Your task to perform on an android device: Search for Mexican restaurants on Maps Image 0: 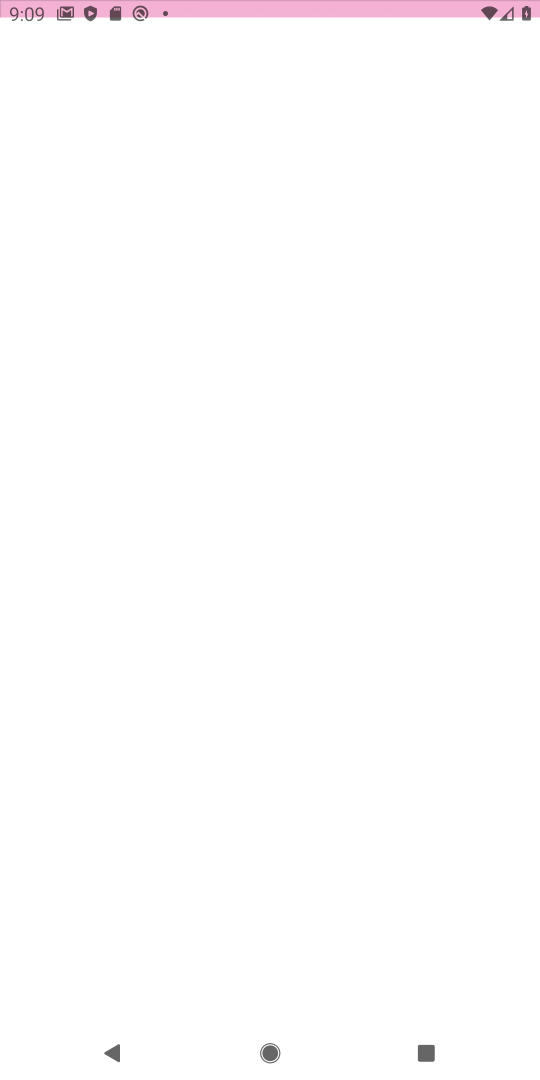
Step 0: press back button
Your task to perform on an android device: Search for Mexican restaurants on Maps Image 1: 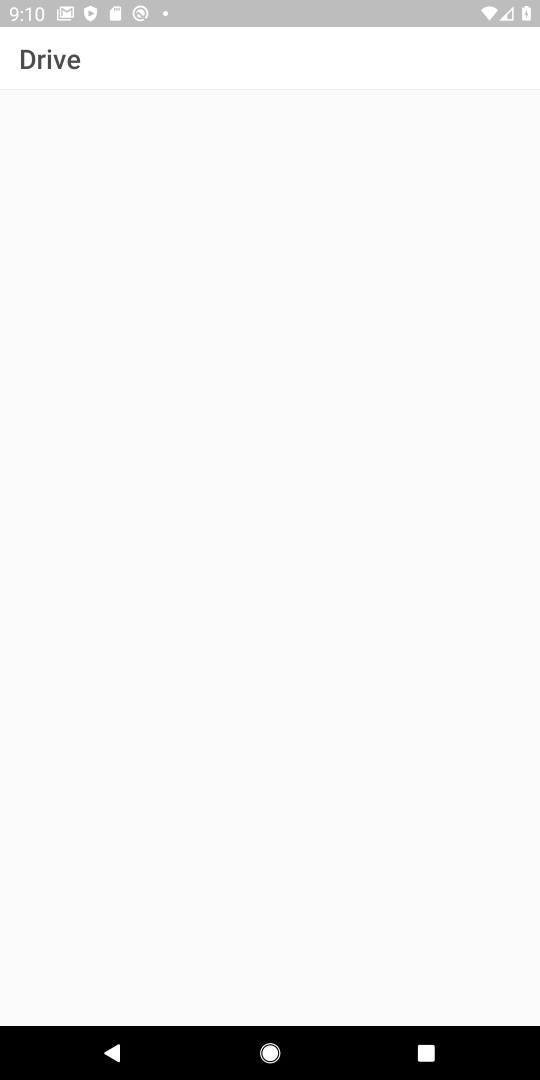
Step 1: press back button
Your task to perform on an android device: Search for Mexican restaurants on Maps Image 2: 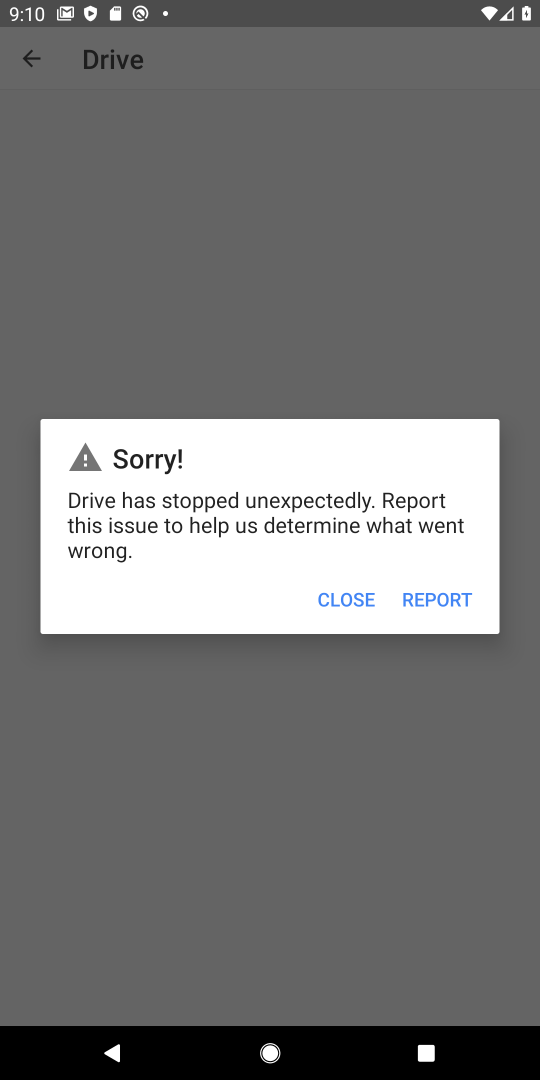
Step 2: press back button
Your task to perform on an android device: Search for Mexican restaurants on Maps Image 3: 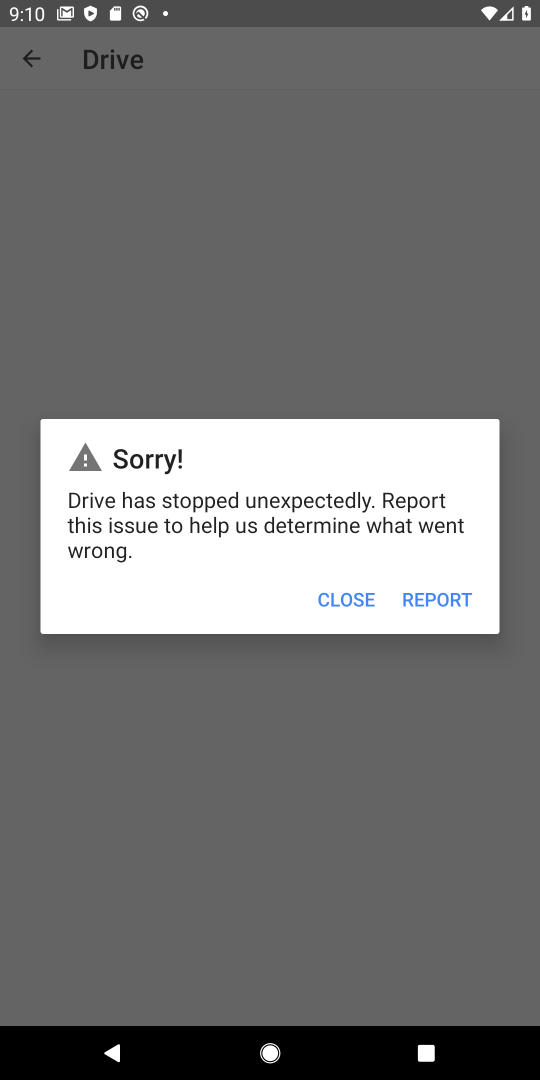
Step 3: press home button
Your task to perform on an android device: Search for Mexican restaurants on Maps Image 4: 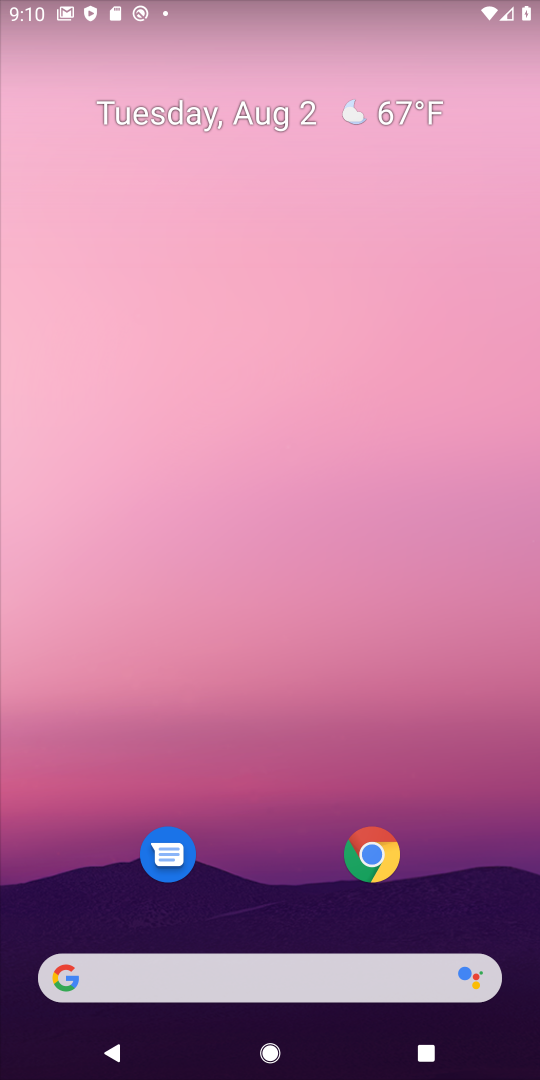
Step 4: drag from (283, 937) to (293, 0)
Your task to perform on an android device: Search for Mexican restaurants on Maps Image 5: 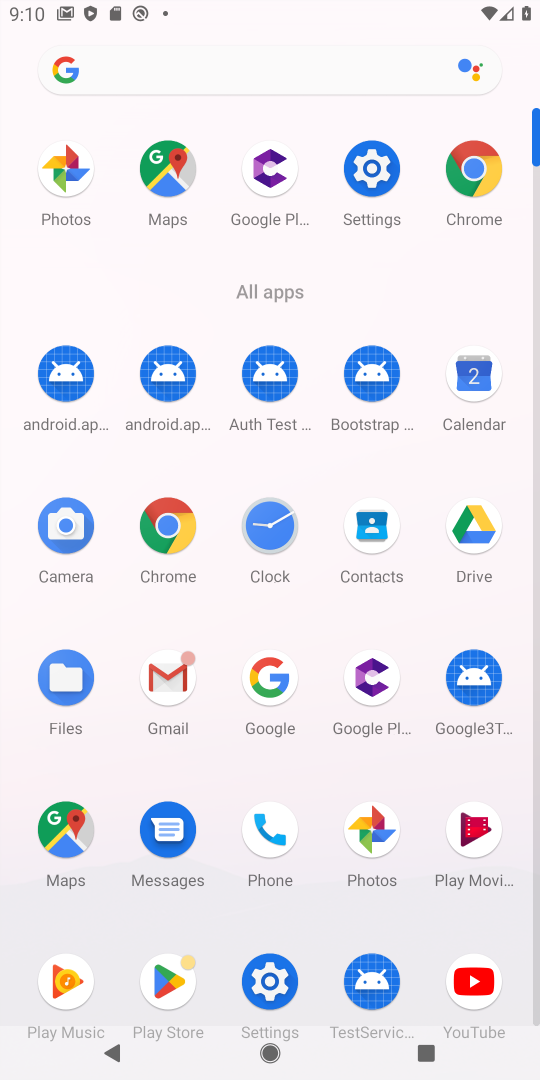
Step 5: click (44, 863)
Your task to perform on an android device: Search for Mexican restaurants on Maps Image 6: 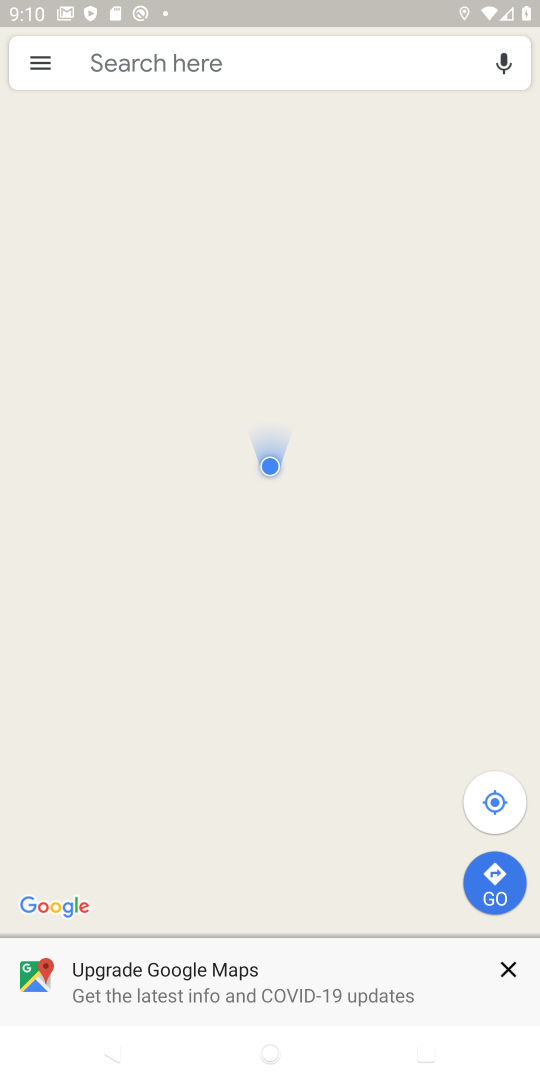
Step 6: click (248, 75)
Your task to perform on an android device: Search for Mexican restaurants on Maps Image 7: 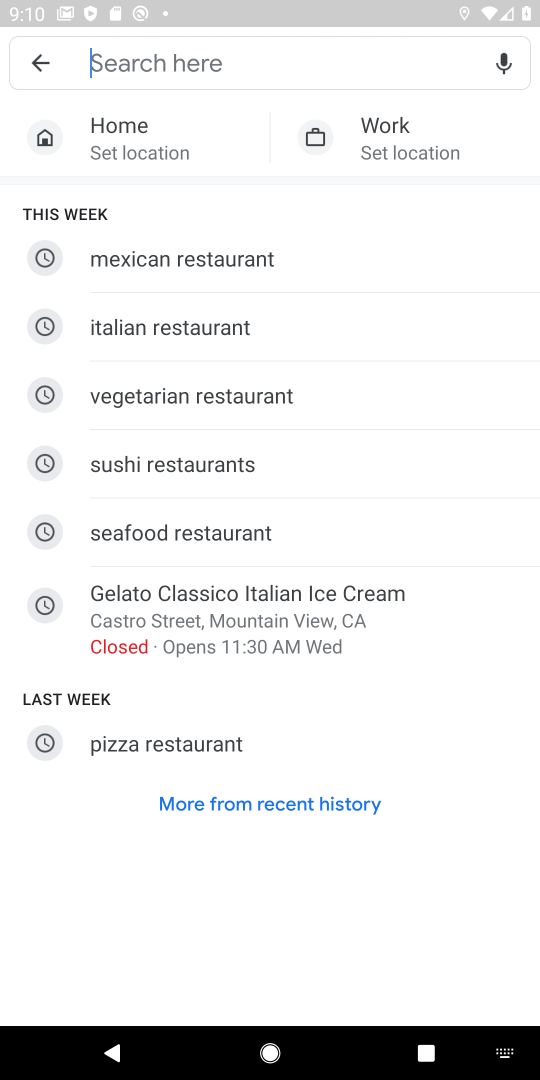
Step 7: click (199, 252)
Your task to perform on an android device: Search for Mexican restaurants on Maps Image 8: 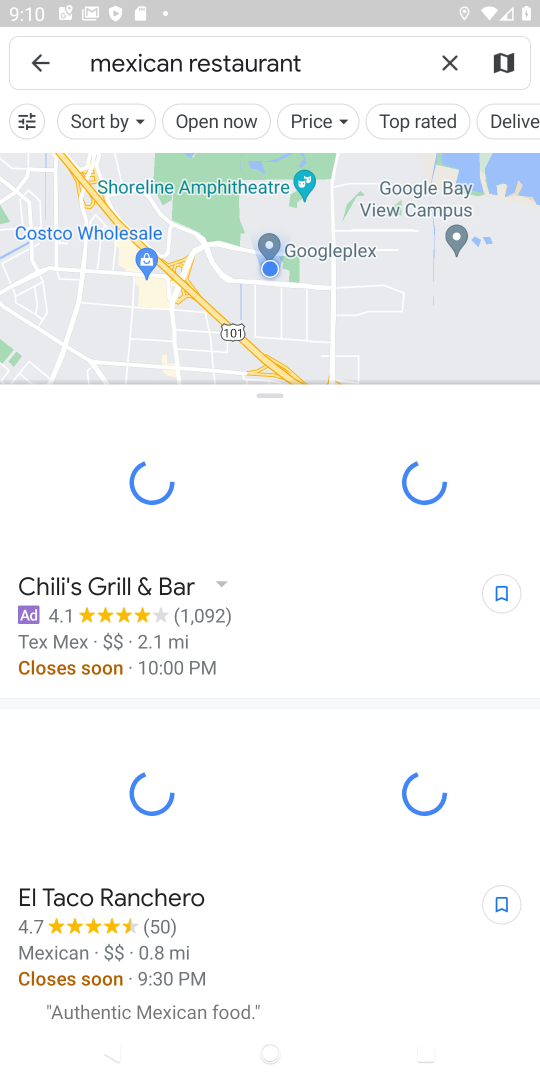
Step 8: task complete